Your task to perform on an android device: refresh tabs in the chrome app Image 0: 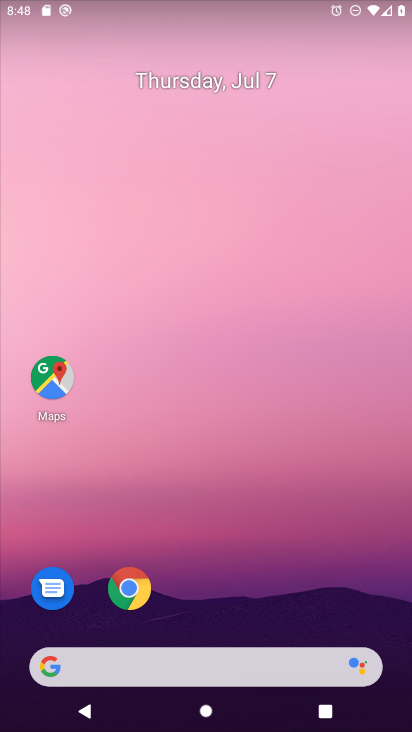
Step 0: drag from (221, 633) to (216, 313)
Your task to perform on an android device: refresh tabs in the chrome app Image 1: 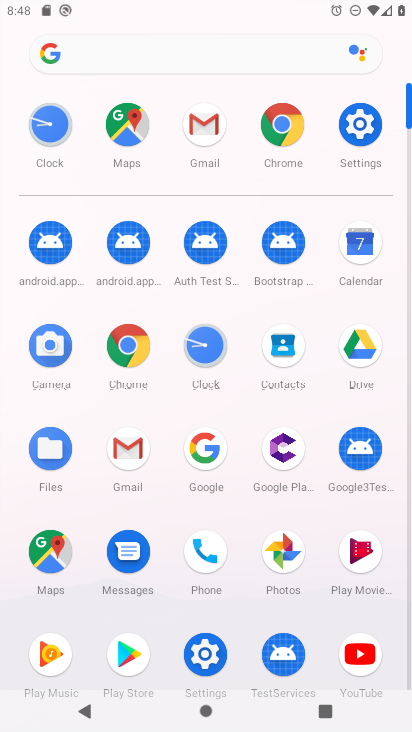
Step 1: click (121, 346)
Your task to perform on an android device: refresh tabs in the chrome app Image 2: 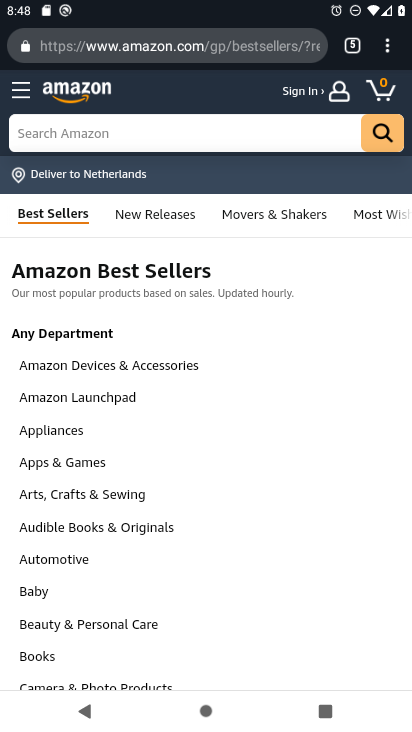
Step 2: click (384, 48)
Your task to perform on an android device: refresh tabs in the chrome app Image 3: 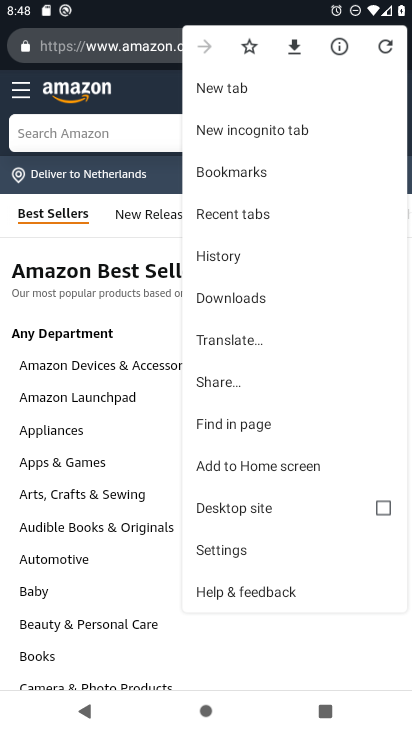
Step 3: click (394, 47)
Your task to perform on an android device: refresh tabs in the chrome app Image 4: 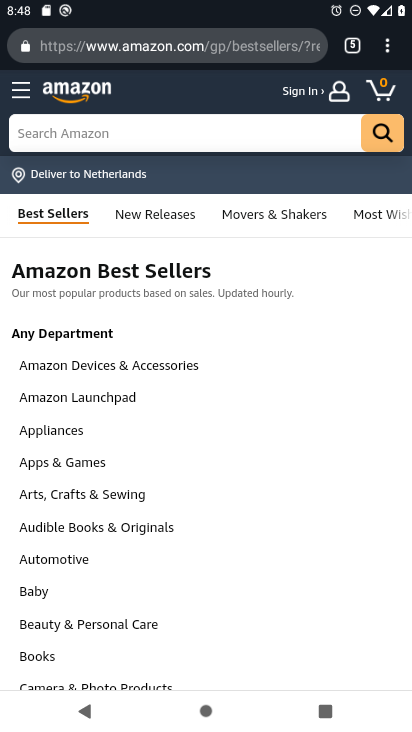
Step 4: click (394, 47)
Your task to perform on an android device: refresh tabs in the chrome app Image 5: 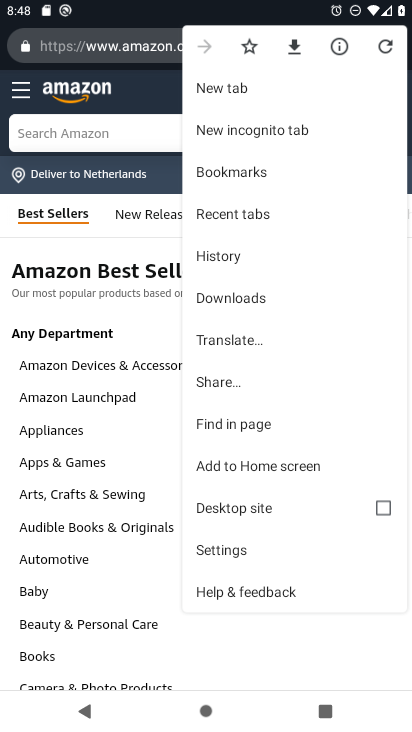
Step 5: click (387, 42)
Your task to perform on an android device: refresh tabs in the chrome app Image 6: 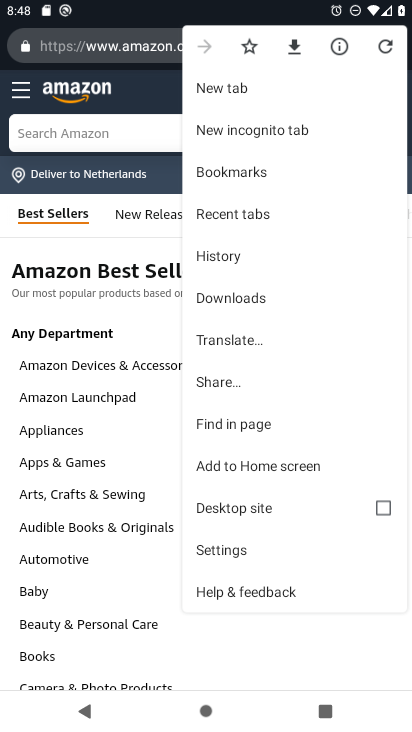
Step 6: task complete